Your task to perform on an android device: Show me popular games on the Play Store Image 0: 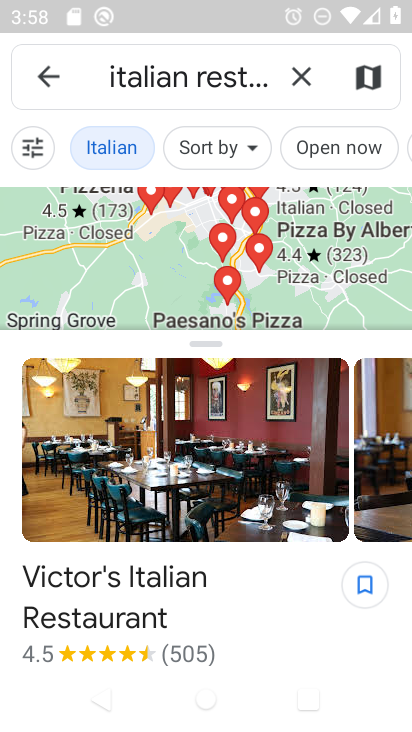
Step 0: press home button
Your task to perform on an android device: Show me popular games on the Play Store Image 1: 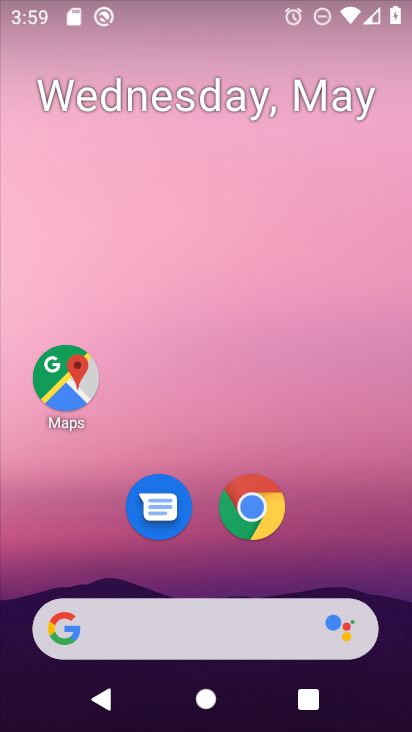
Step 1: drag from (340, 573) to (361, 170)
Your task to perform on an android device: Show me popular games on the Play Store Image 2: 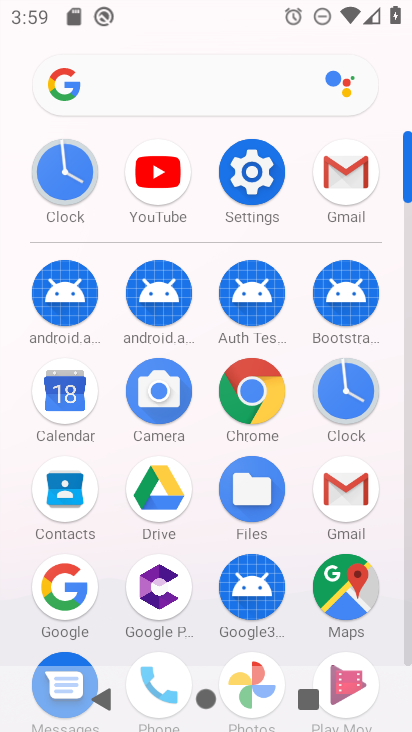
Step 2: drag from (199, 607) to (223, 402)
Your task to perform on an android device: Show me popular games on the Play Store Image 3: 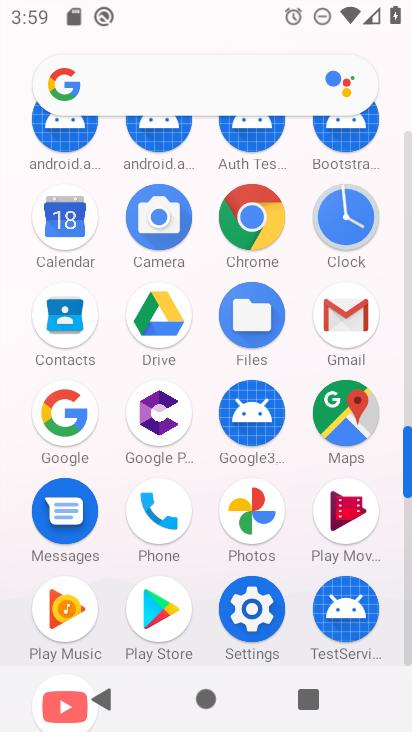
Step 3: click (152, 627)
Your task to perform on an android device: Show me popular games on the Play Store Image 4: 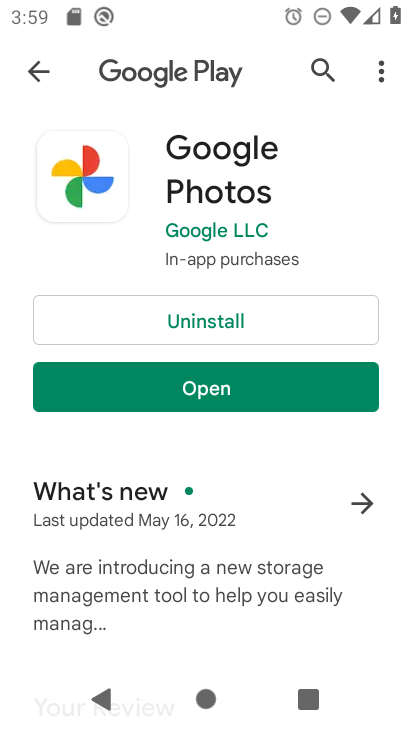
Step 4: click (221, 401)
Your task to perform on an android device: Show me popular games on the Play Store Image 5: 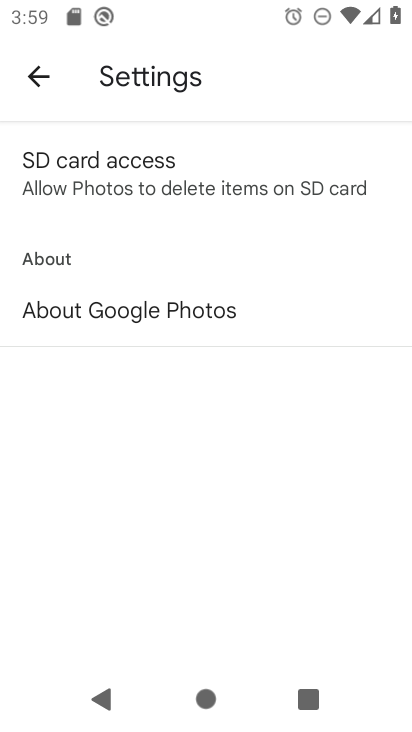
Step 5: click (34, 66)
Your task to perform on an android device: Show me popular games on the Play Store Image 6: 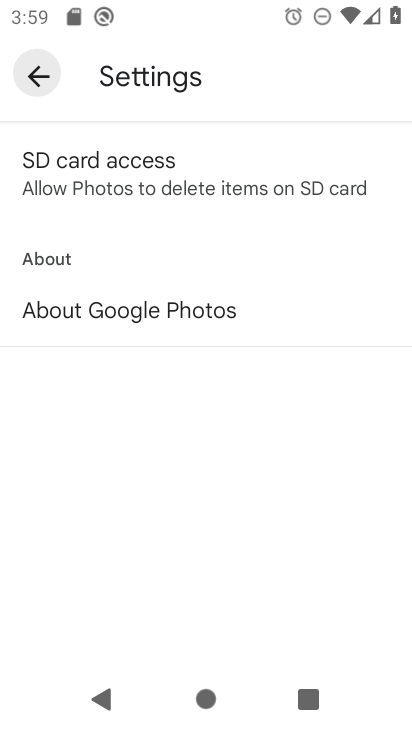
Step 6: click (34, 66)
Your task to perform on an android device: Show me popular games on the Play Store Image 7: 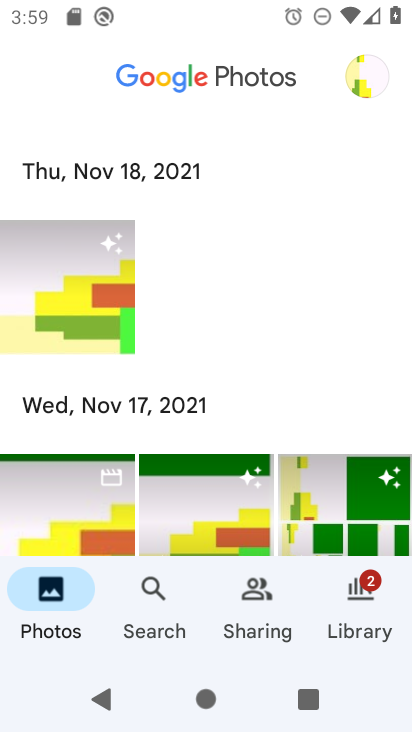
Step 7: press home button
Your task to perform on an android device: Show me popular games on the Play Store Image 8: 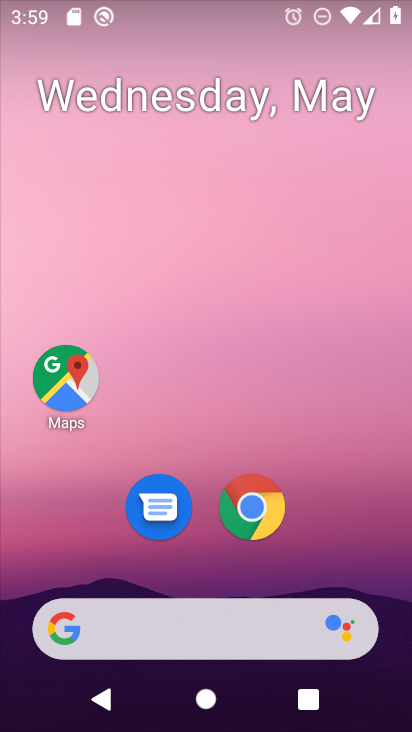
Step 8: drag from (334, 536) to (336, 109)
Your task to perform on an android device: Show me popular games on the Play Store Image 9: 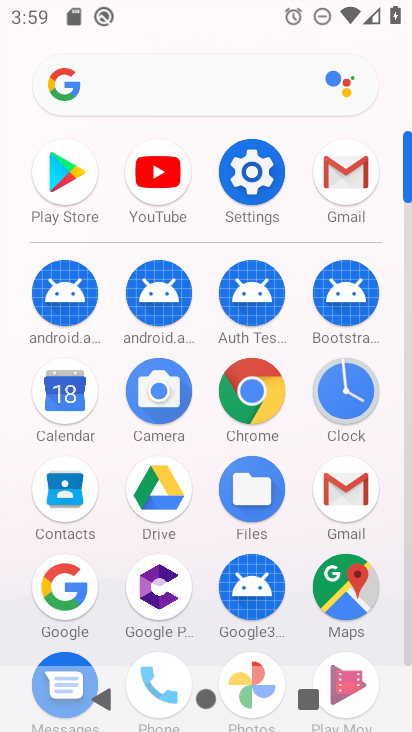
Step 9: drag from (198, 605) to (192, 274)
Your task to perform on an android device: Show me popular games on the Play Store Image 10: 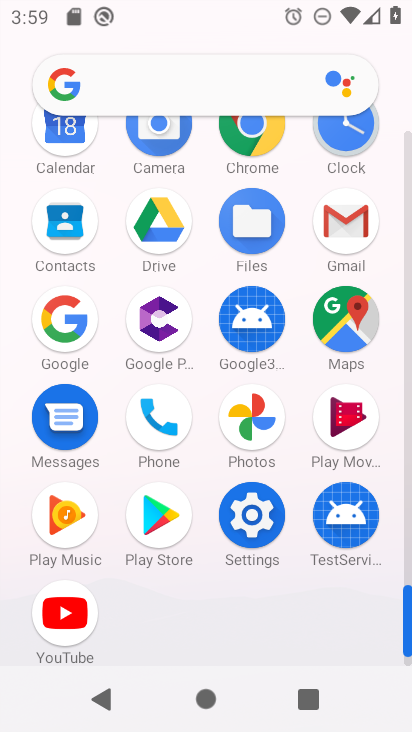
Step 10: click (146, 531)
Your task to perform on an android device: Show me popular games on the Play Store Image 11: 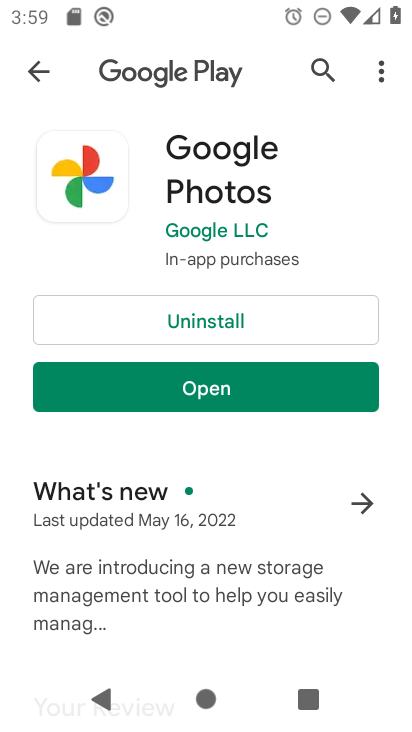
Step 11: click (42, 66)
Your task to perform on an android device: Show me popular games on the Play Store Image 12: 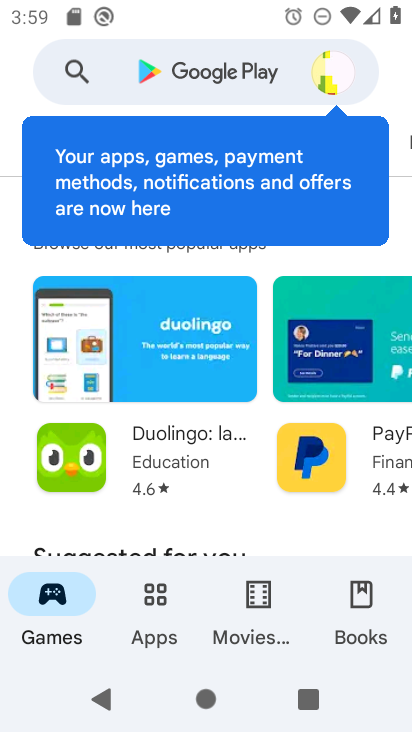
Step 12: click (175, 61)
Your task to perform on an android device: Show me popular games on the Play Store Image 13: 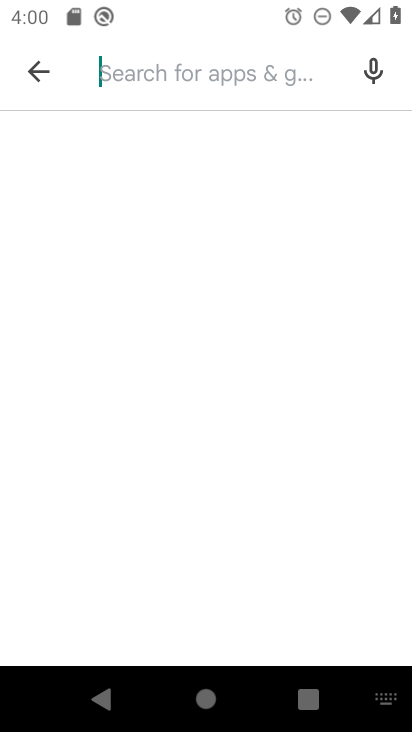
Step 13: type "popular games"
Your task to perform on an android device: Show me popular games on the Play Store Image 14: 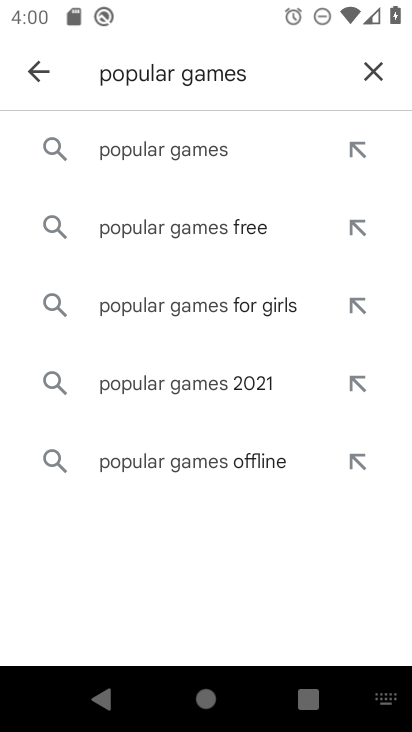
Step 14: click (146, 154)
Your task to perform on an android device: Show me popular games on the Play Store Image 15: 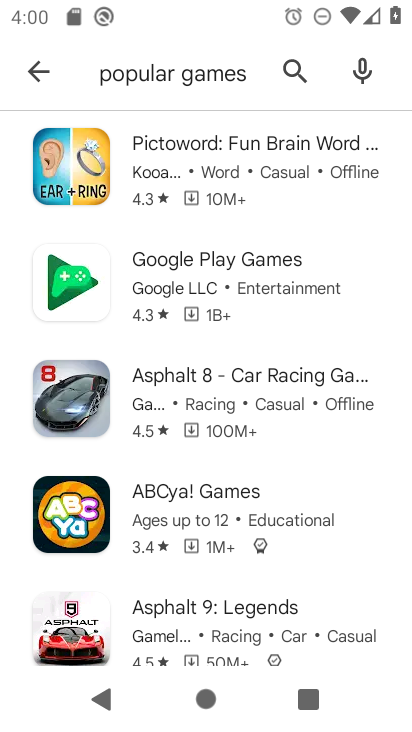
Step 15: task complete